Your task to perform on an android device: Go to accessibility settings Image 0: 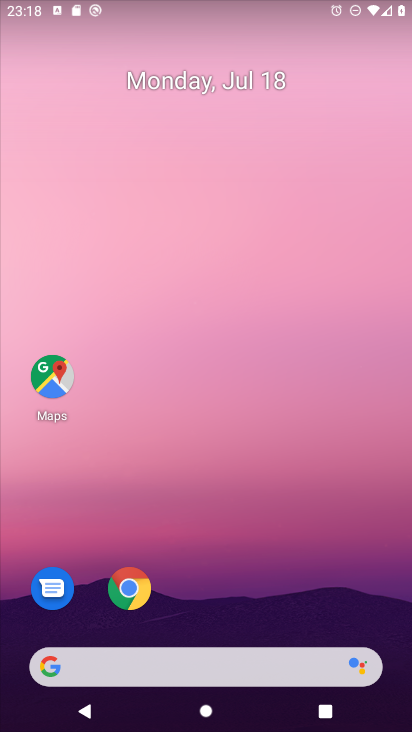
Step 0: drag from (380, 609) to (313, 174)
Your task to perform on an android device: Go to accessibility settings Image 1: 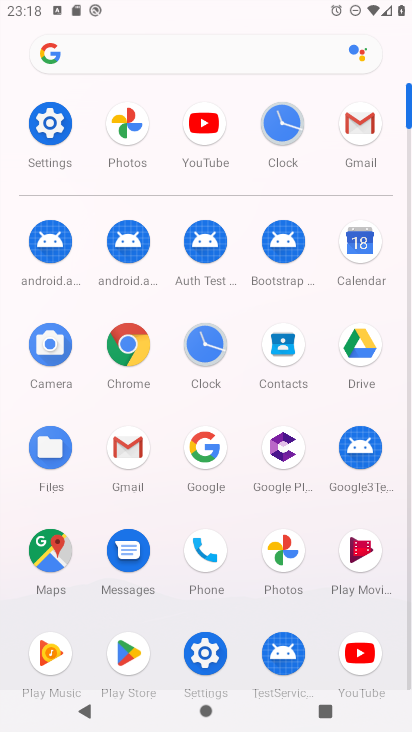
Step 1: click (204, 652)
Your task to perform on an android device: Go to accessibility settings Image 2: 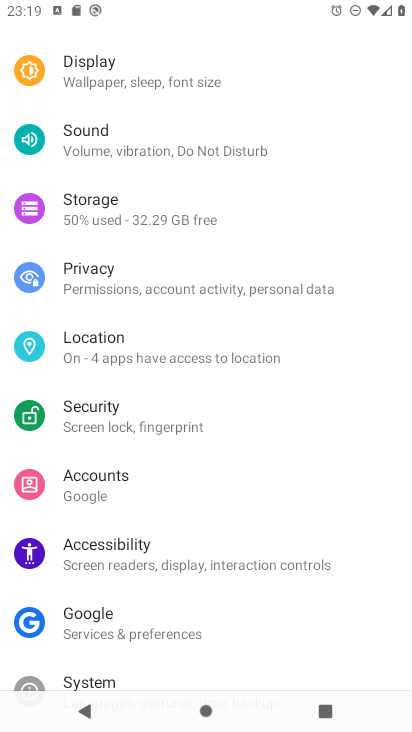
Step 2: click (87, 540)
Your task to perform on an android device: Go to accessibility settings Image 3: 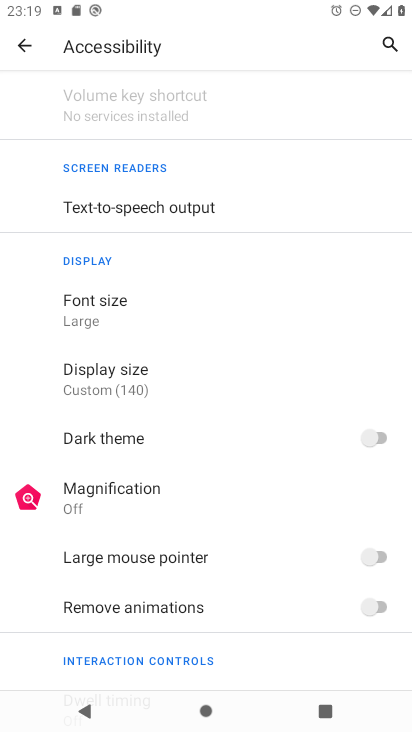
Step 3: task complete